Your task to perform on an android device: change the clock display to show seconds Image 0: 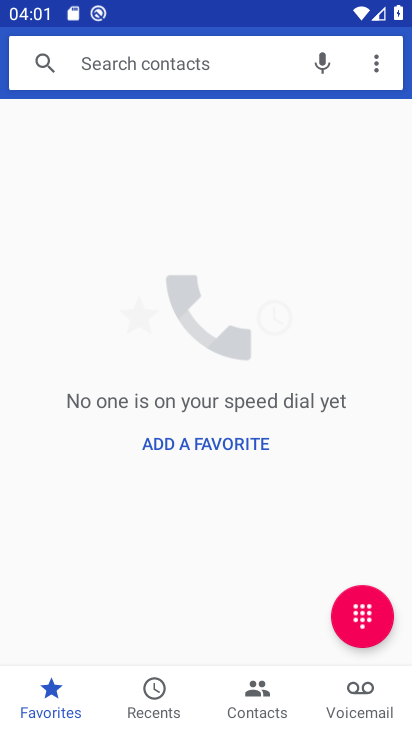
Step 0: drag from (274, 10) to (251, 558)
Your task to perform on an android device: change the clock display to show seconds Image 1: 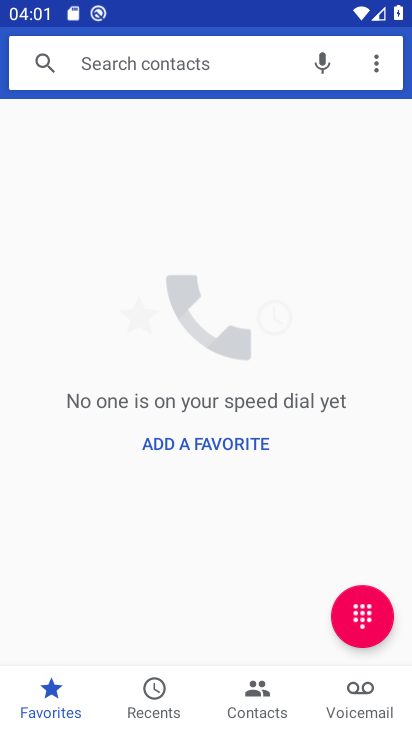
Step 1: drag from (263, 11) to (329, 578)
Your task to perform on an android device: change the clock display to show seconds Image 2: 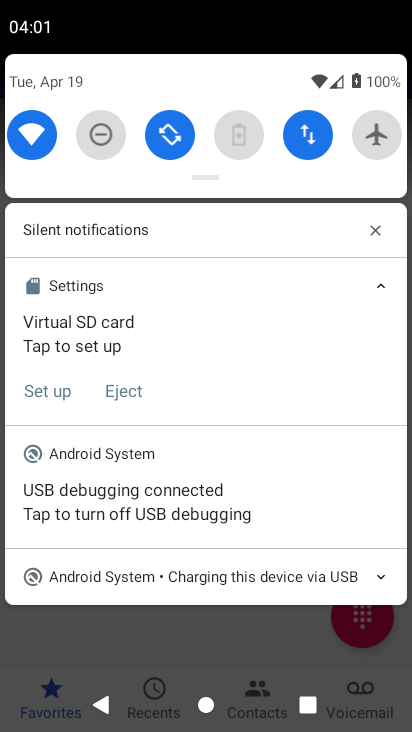
Step 2: drag from (239, 95) to (331, 618)
Your task to perform on an android device: change the clock display to show seconds Image 3: 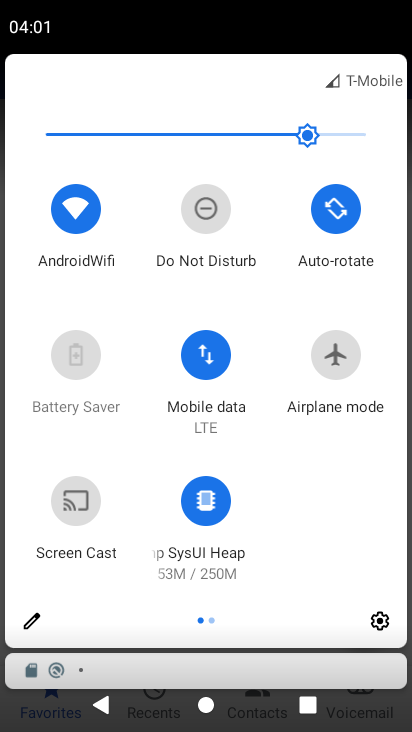
Step 3: click (381, 613)
Your task to perform on an android device: change the clock display to show seconds Image 4: 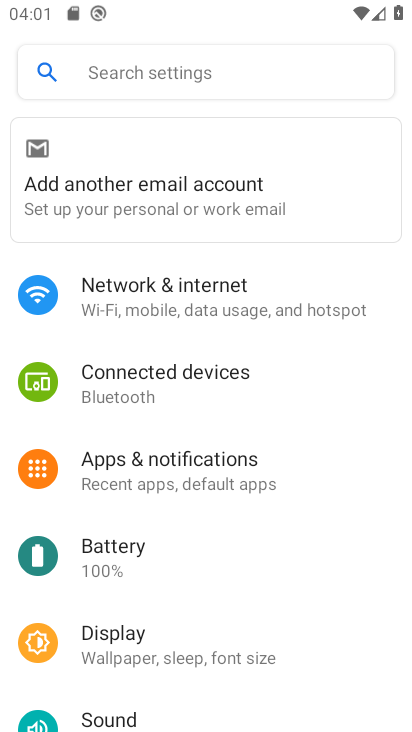
Step 4: press home button
Your task to perform on an android device: change the clock display to show seconds Image 5: 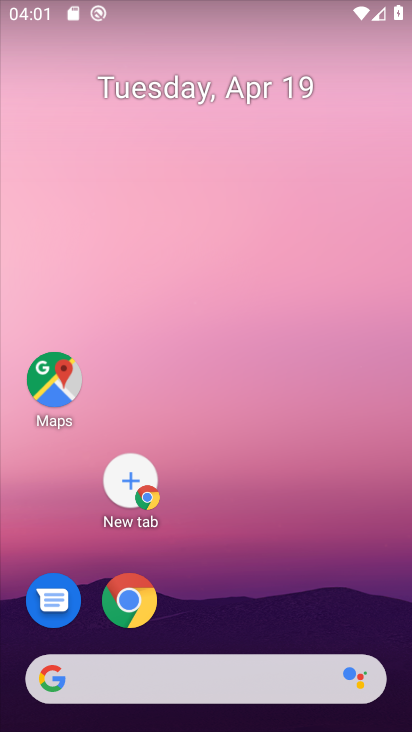
Step 5: drag from (202, 550) to (194, 148)
Your task to perform on an android device: change the clock display to show seconds Image 6: 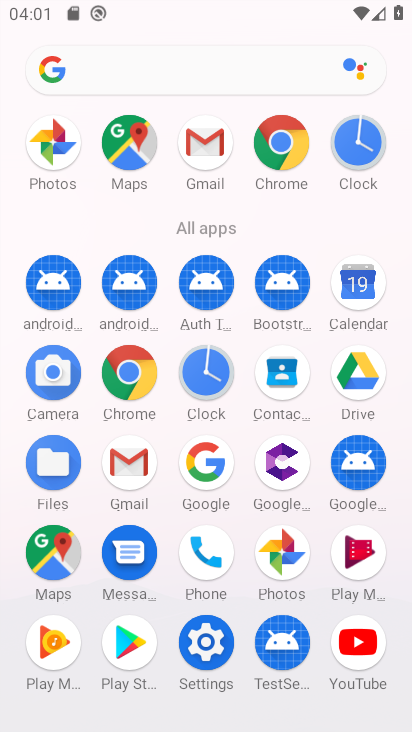
Step 6: click (209, 373)
Your task to perform on an android device: change the clock display to show seconds Image 7: 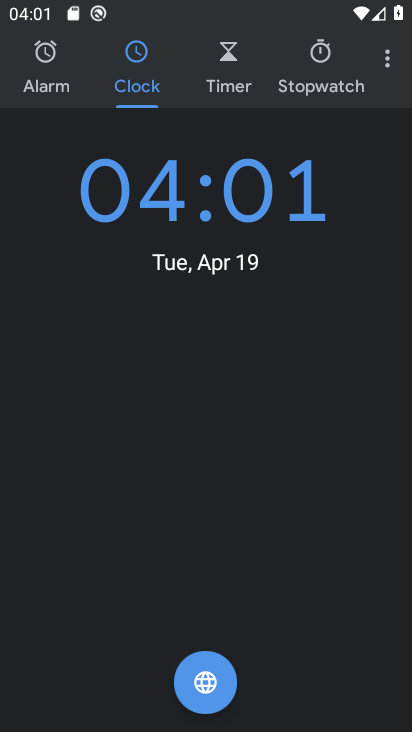
Step 7: click (384, 82)
Your task to perform on an android device: change the clock display to show seconds Image 8: 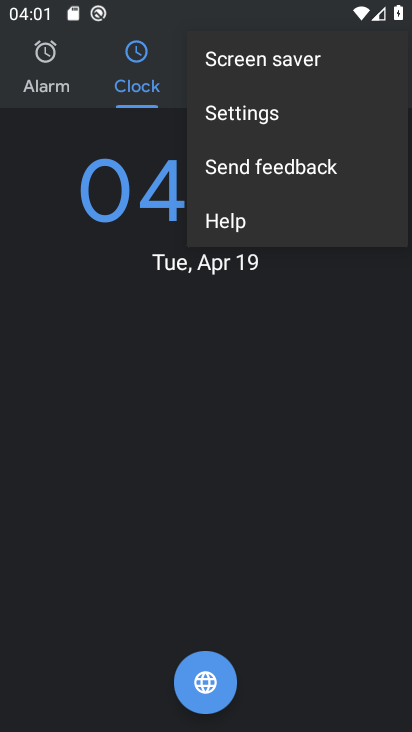
Step 8: click (292, 126)
Your task to perform on an android device: change the clock display to show seconds Image 9: 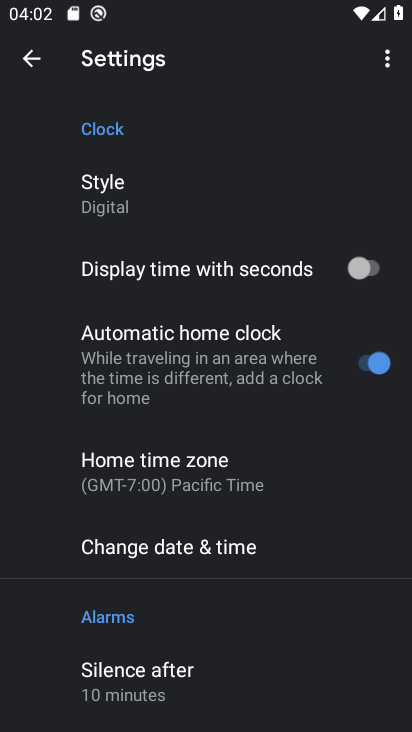
Step 9: click (372, 270)
Your task to perform on an android device: change the clock display to show seconds Image 10: 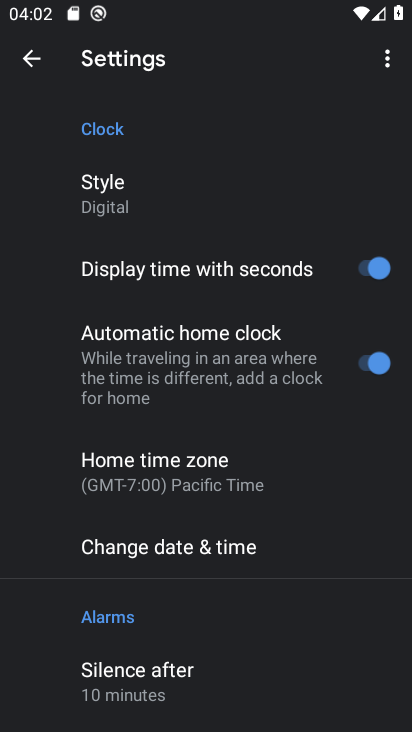
Step 10: task complete